Your task to perform on an android device: turn on sleep mode Image 0: 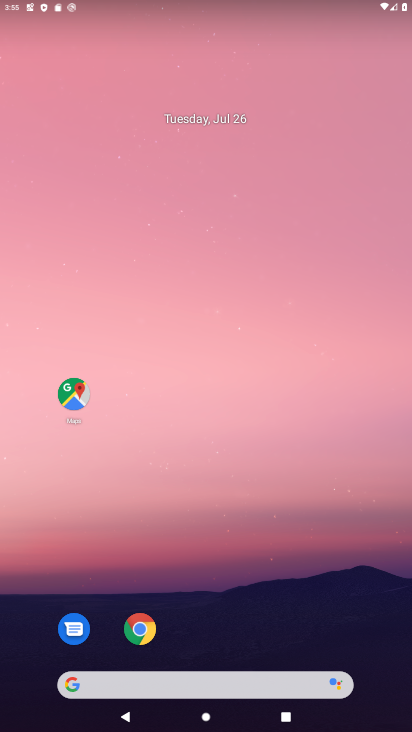
Step 0: drag from (252, 634) to (241, 272)
Your task to perform on an android device: turn on sleep mode Image 1: 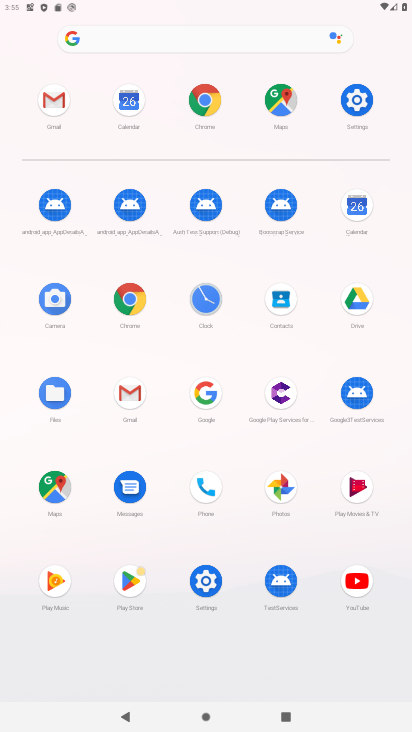
Step 1: click (214, 587)
Your task to perform on an android device: turn on sleep mode Image 2: 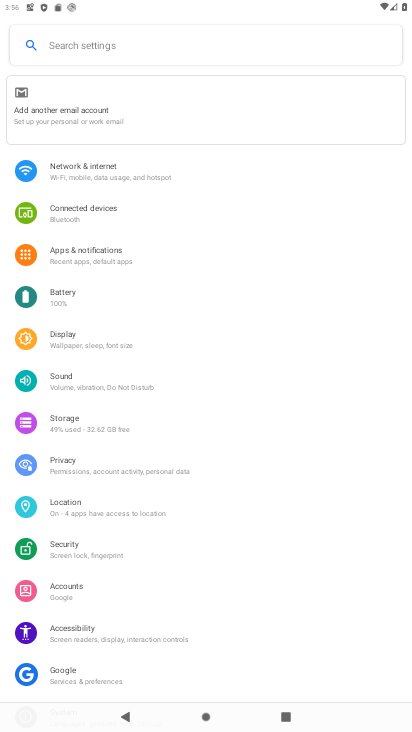
Step 2: click (90, 338)
Your task to perform on an android device: turn on sleep mode Image 3: 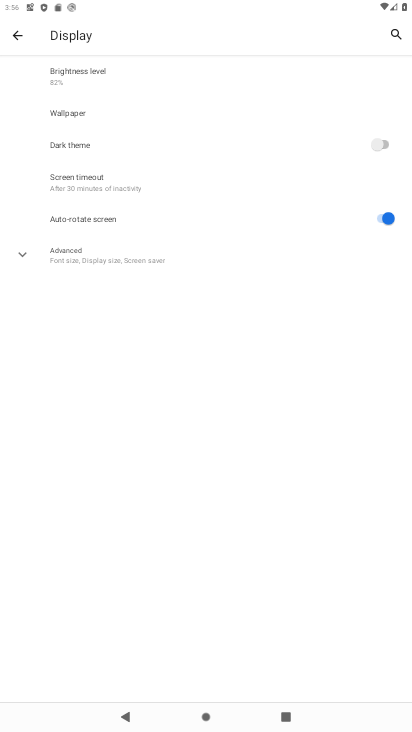
Step 3: task complete